Your task to perform on an android device: delete the emails in spam in the gmail app Image 0: 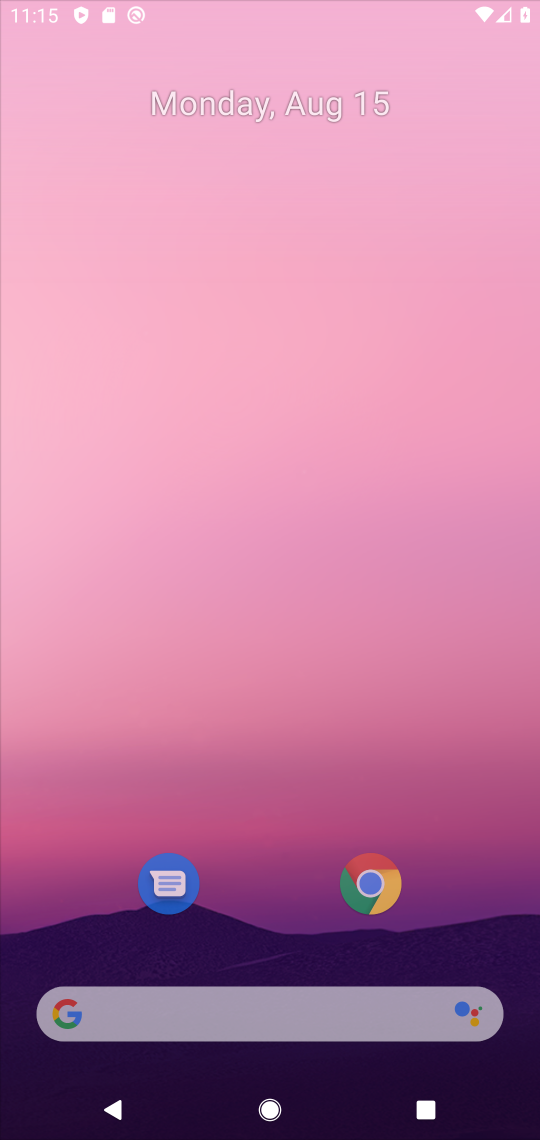
Step 0: press home button
Your task to perform on an android device: delete the emails in spam in the gmail app Image 1: 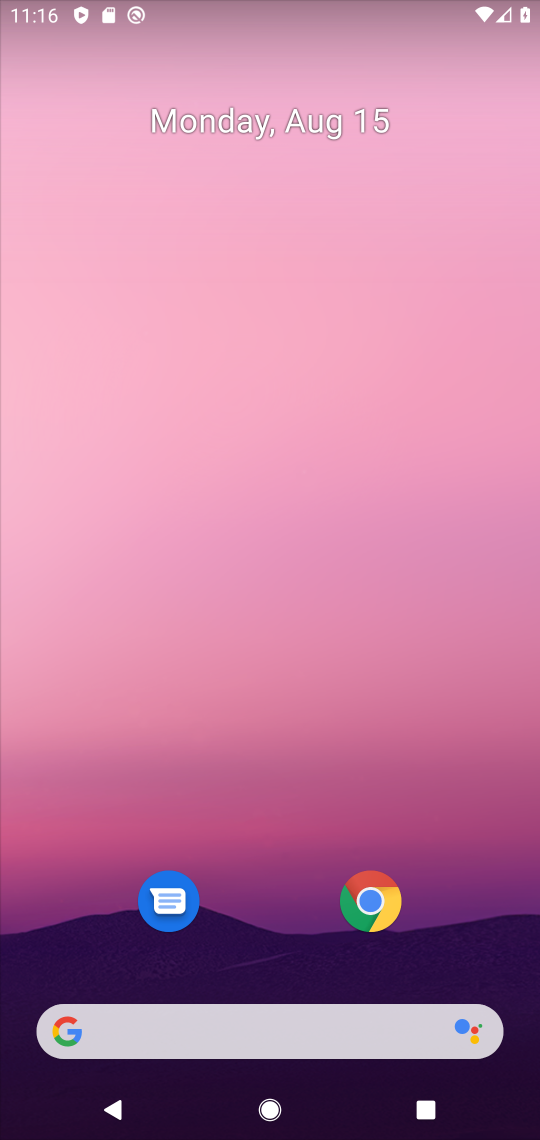
Step 1: drag from (267, 934) to (318, 0)
Your task to perform on an android device: delete the emails in spam in the gmail app Image 2: 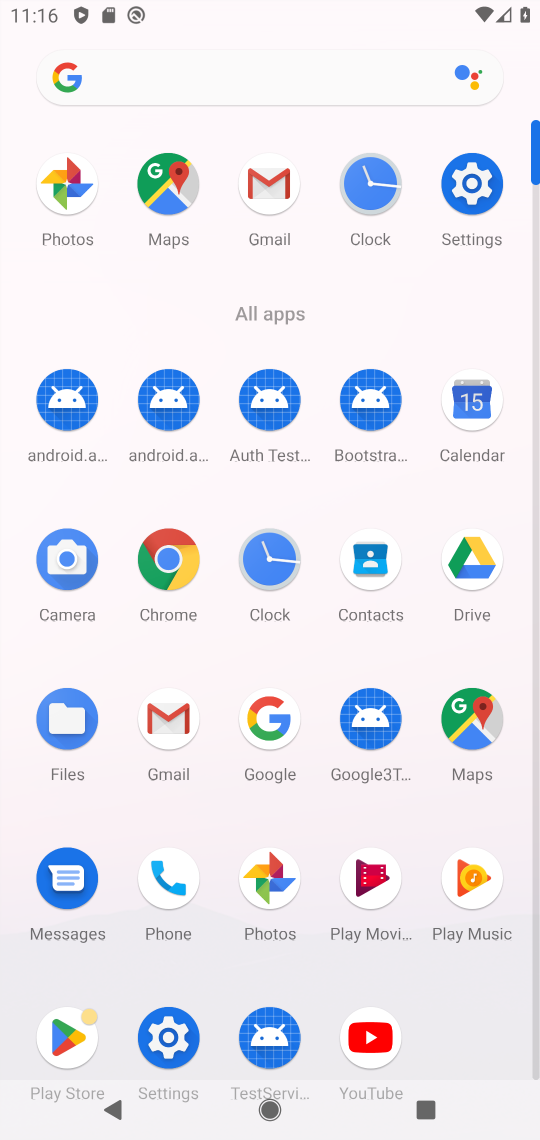
Step 2: click (269, 190)
Your task to perform on an android device: delete the emails in spam in the gmail app Image 3: 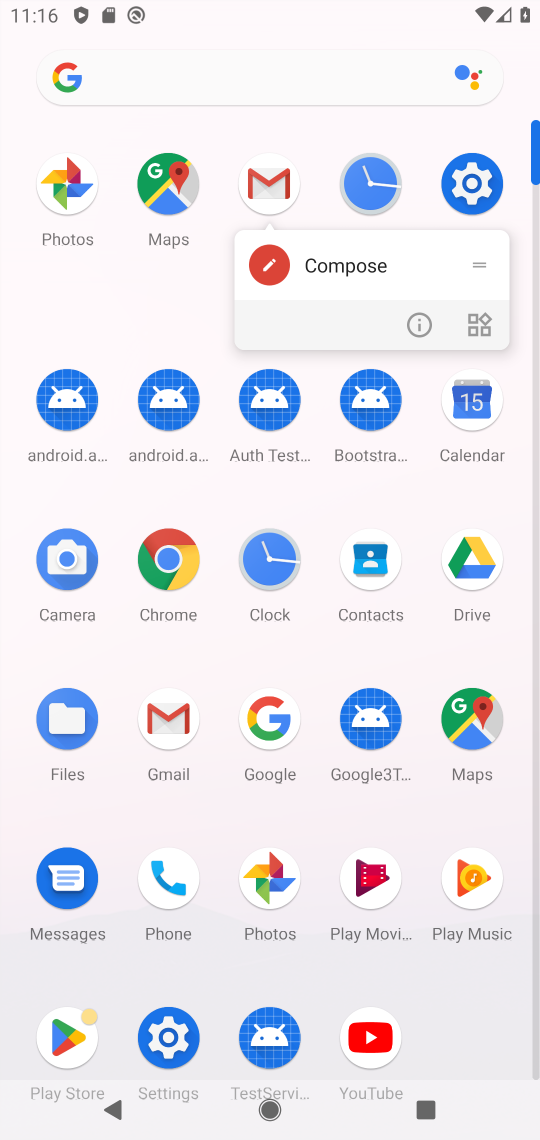
Step 3: click (268, 188)
Your task to perform on an android device: delete the emails in spam in the gmail app Image 4: 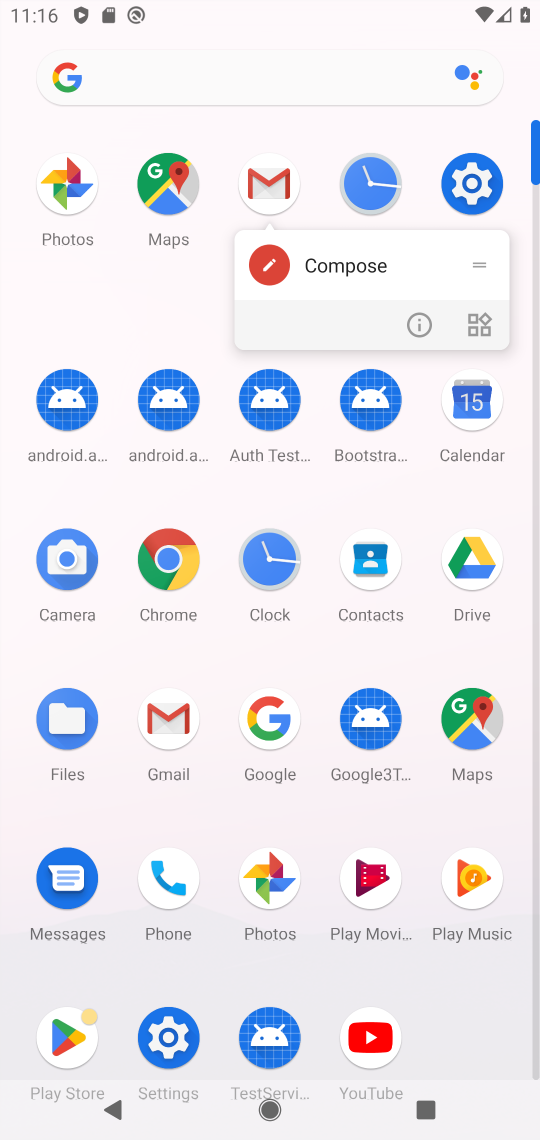
Step 4: click (268, 188)
Your task to perform on an android device: delete the emails in spam in the gmail app Image 5: 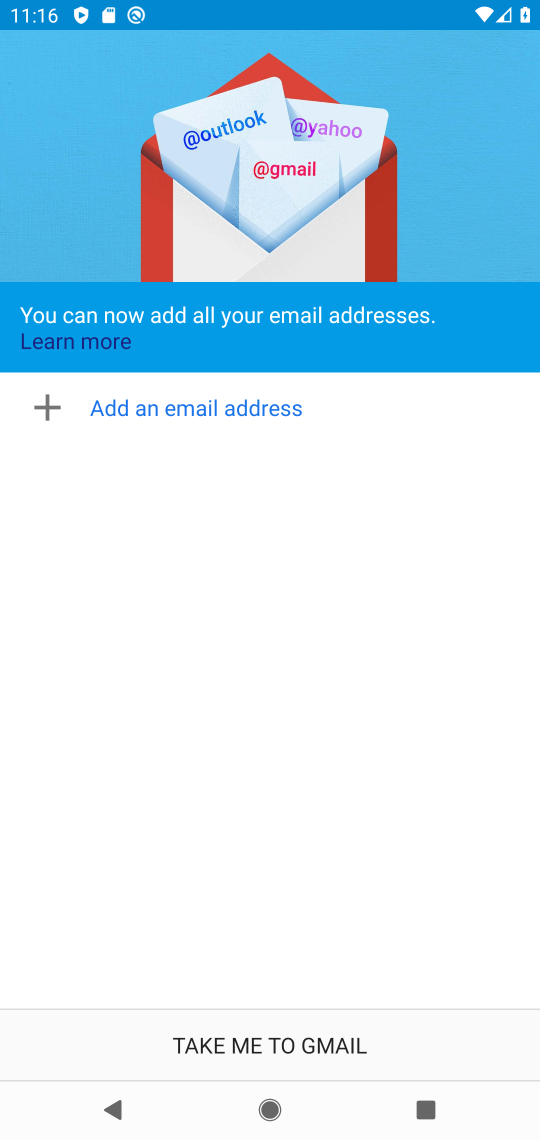
Step 5: press back button
Your task to perform on an android device: delete the emails in spam in the gmail app Image 6: 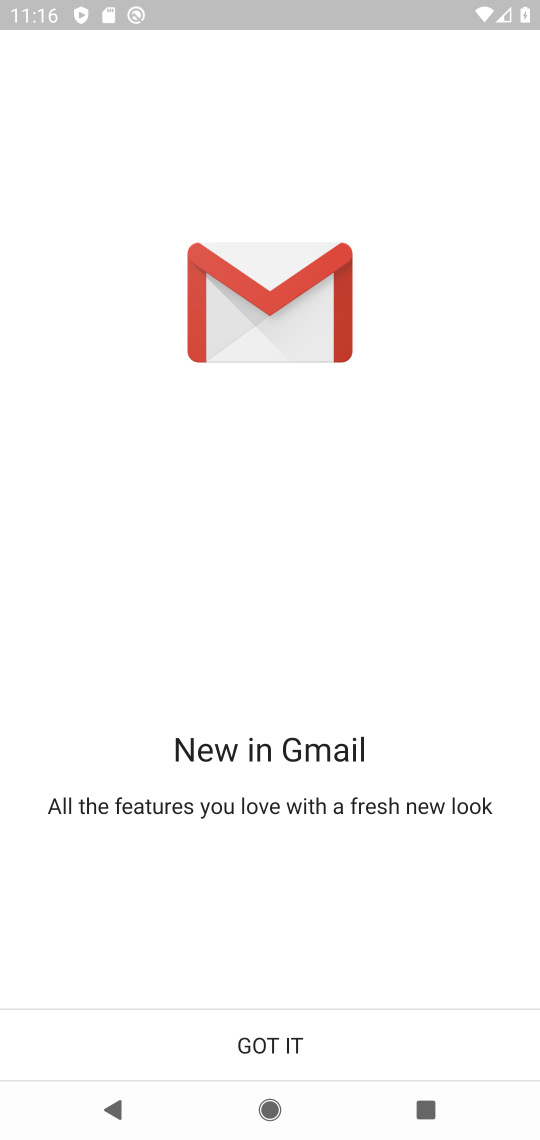
Step 6: click (292, 1051)
Your task to perform on an android device: delete the emails in spam in the gmail app Image 7: 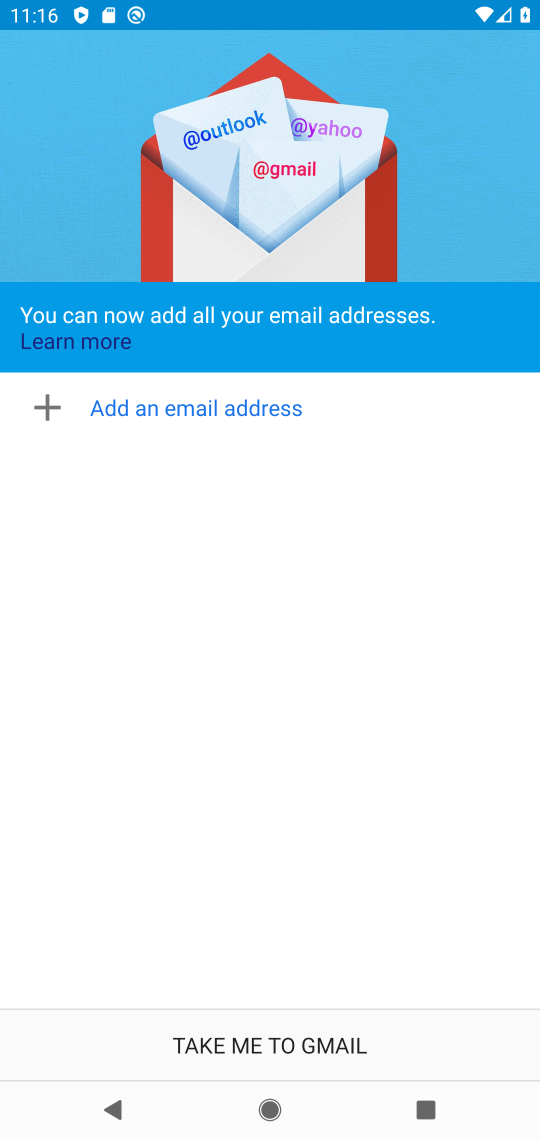
Step 7: click (292, 1051)
Your task to perform on an android device: delete the emails in spam in the gmail app Image 8: 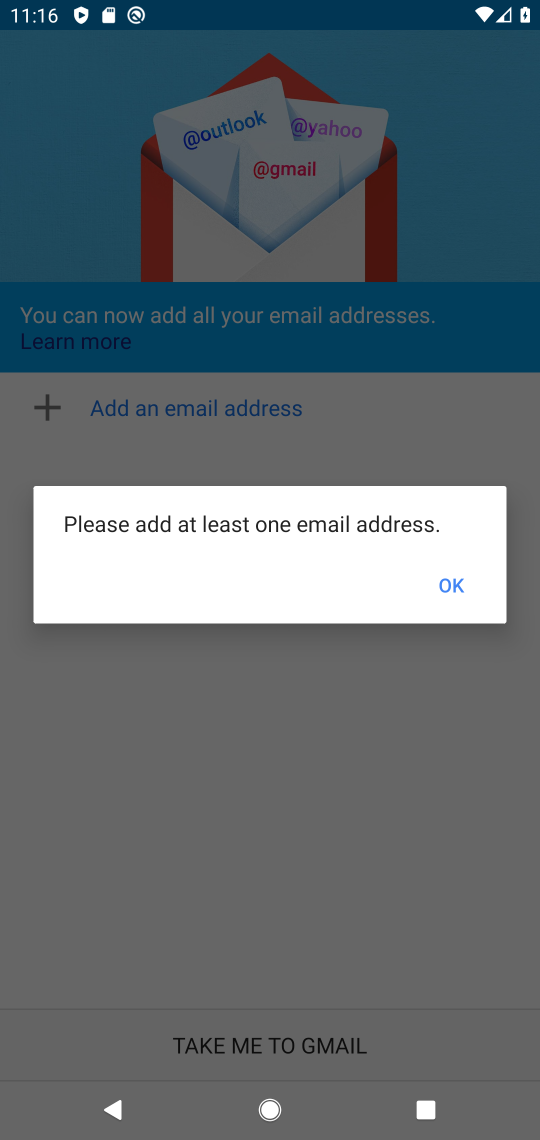
Step 8: task complete